Your task to perform on an android device: What's the weather going to be tomorrow? Image 0: 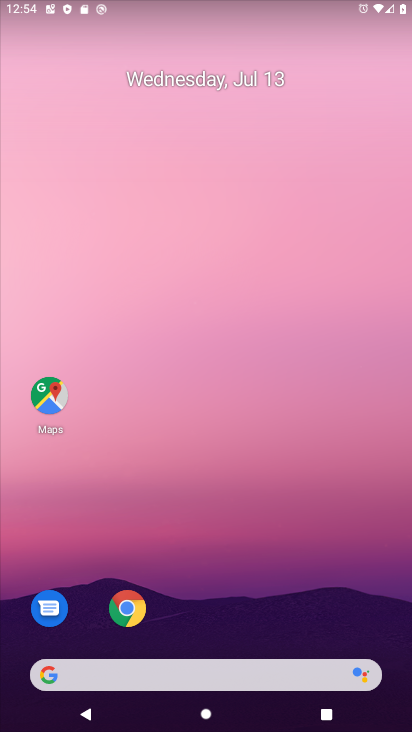
Step 0: drag from (256, 530) to (255, 82)
Your task to perform on an android device: What's the weather going to be tomorrow? Image 1: 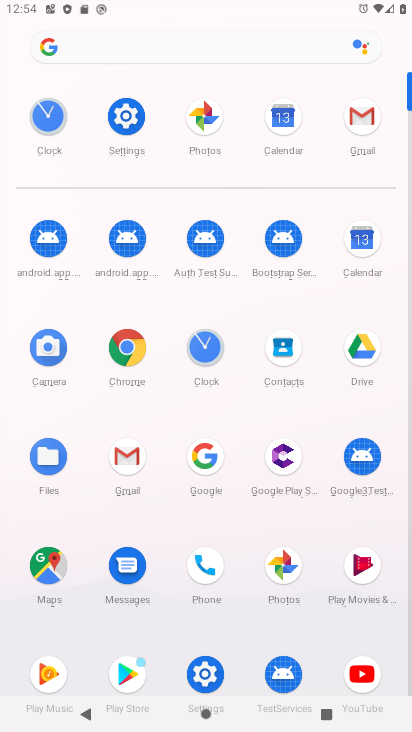
Step 1: click (150, 53)
Your task to perform on an android device: What's the weather going to be tomorrow? Image 2: 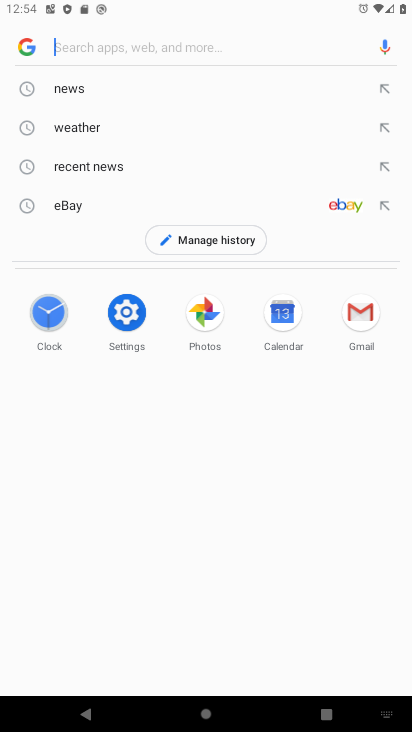
Step 2: click (111, 130)
Your task to perform on an android device: What's the weather going to be tomorrow? Image 3: 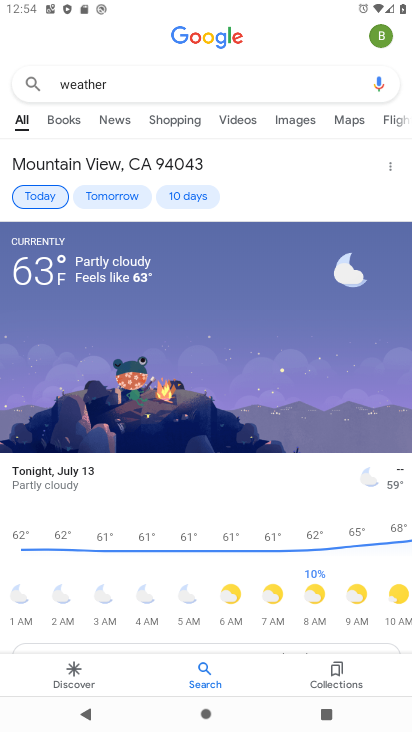
Step 3: click (114, 199)
Your task to perform on an android device: What's the weather going to be tomorrow? Image 4: 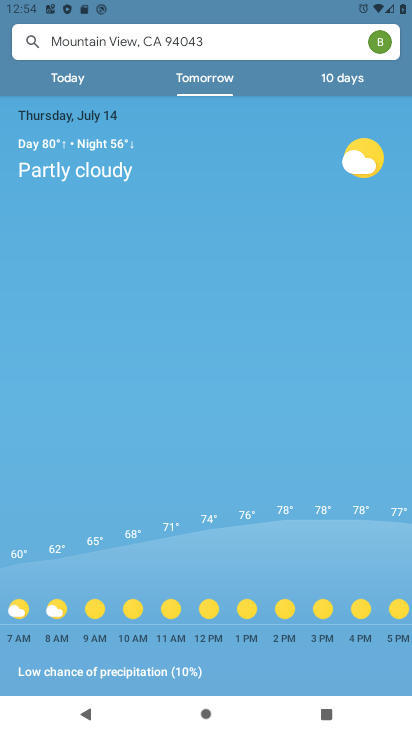
Step 4: task complete